Your task to perform on an android device: toggle improve location accuracy Image 0: 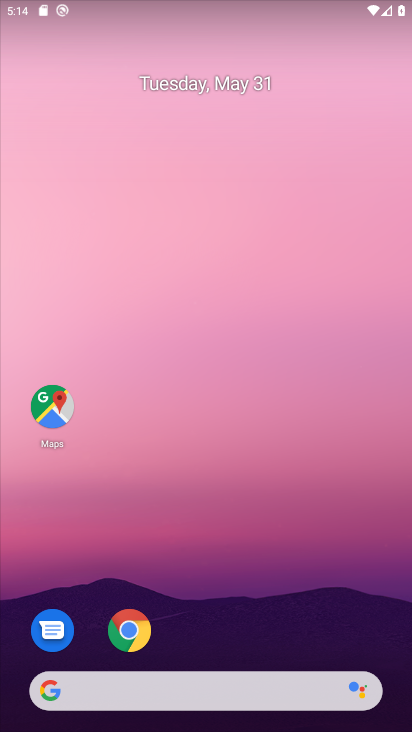
Step 0: drag from (276, 558) to (375, 142)
Your task to perform on an android device: toggle improve location accuracy Image 1: 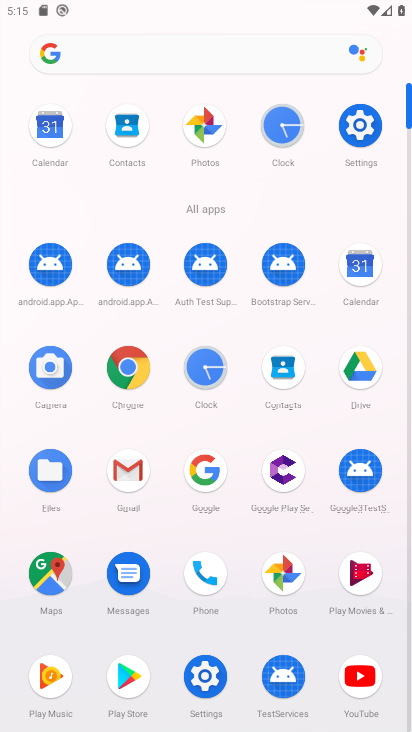
Step 1: click (358, 105)
Your task to perform on an android device: toggle improve location accuracy Image 2: 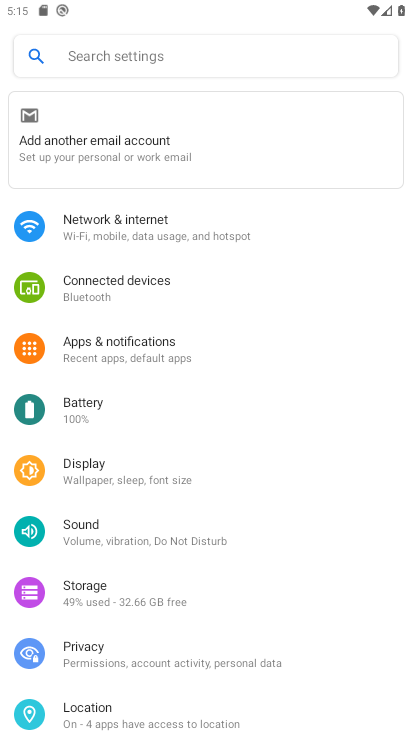
Step 2: click (148, 696)
Your task to perform on an android device: toggle improve location accuracy Image 3: 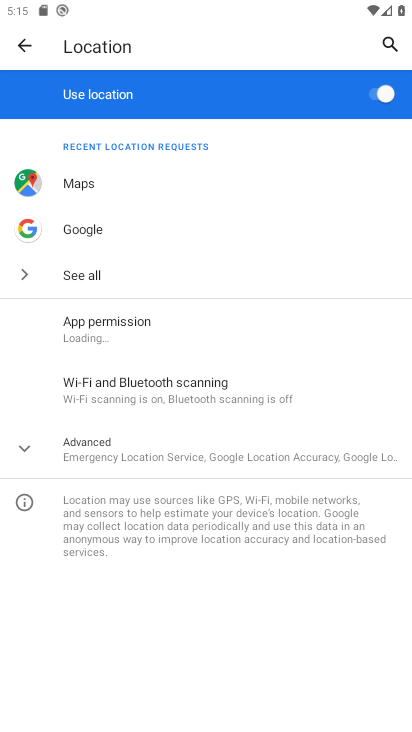
Step 3: click (129, 441)
Your task to perform on an android device: toggle improve location accuracy Image 4: 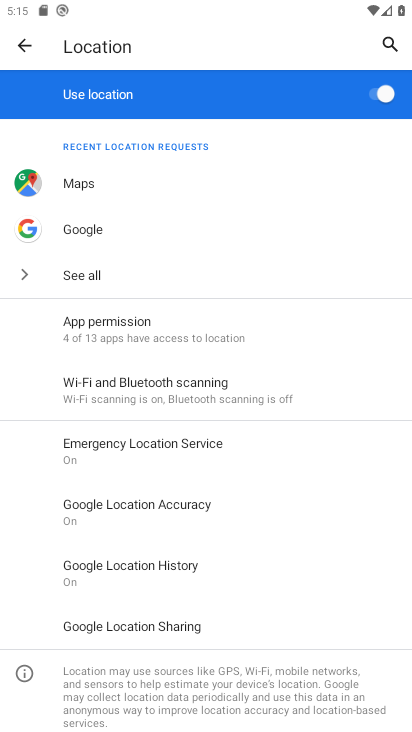
Step 4: click (142, 523)
Your task to perform on an android device: toggle improve location accuracy Image 5: 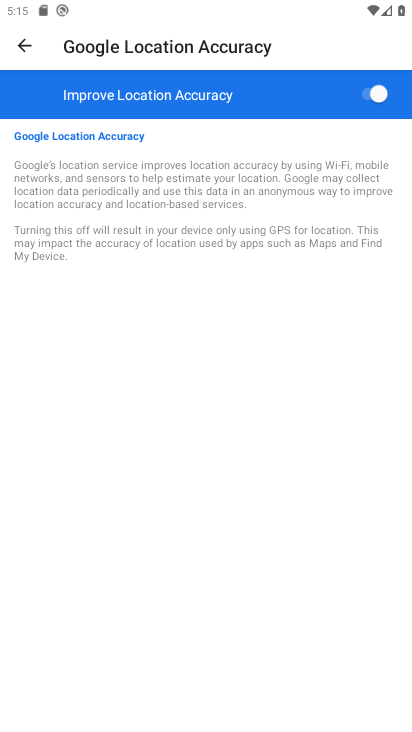
Step 5: click (372, 102)
Your task to perform on an android device: toggle improve location accuracy Image 6: 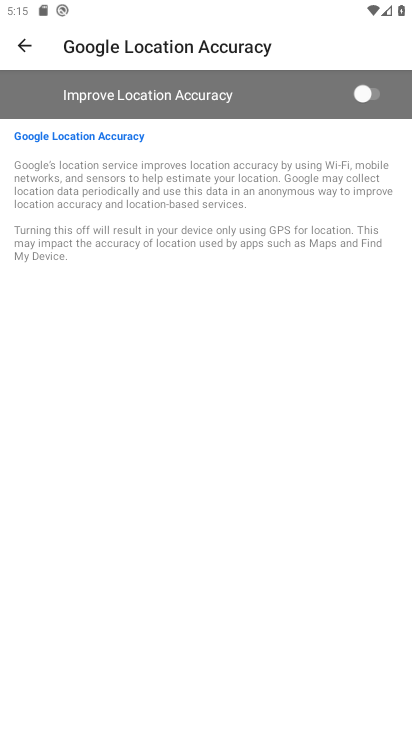
Step 6: task complete